Your task to perform on an android device: Open calendar and show me the fourth week of next month Image 0: 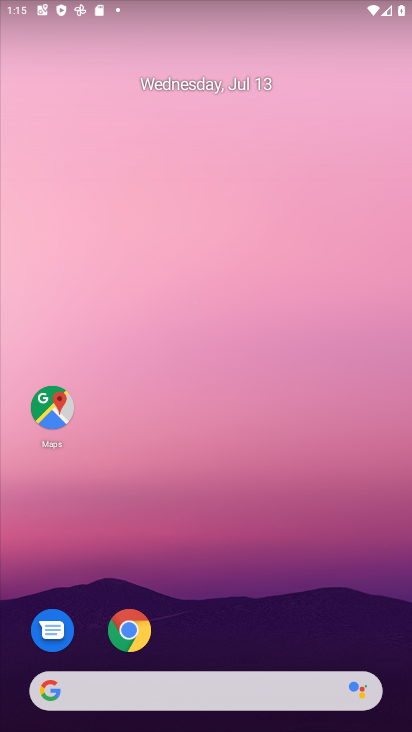
Step 0: drag from (336, 612) to (49, 100)
Your task to perform on an android device: Open calendar and show me the fourth week of next month Image 1: 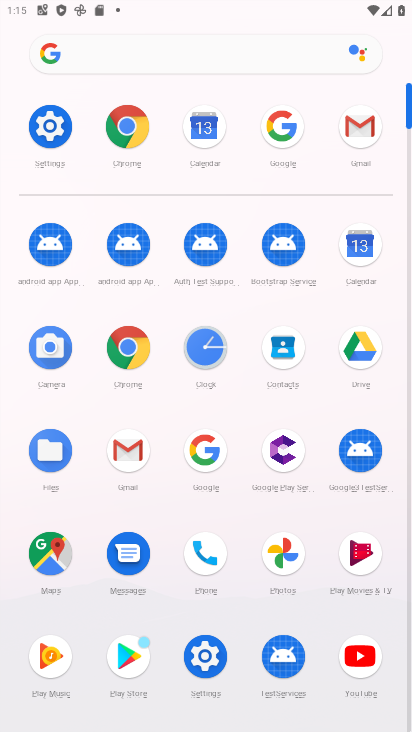
Step 1: click (356, 260)
Your task to perform on an android device: Open calendar and show me the fourth week of next month Image 2: 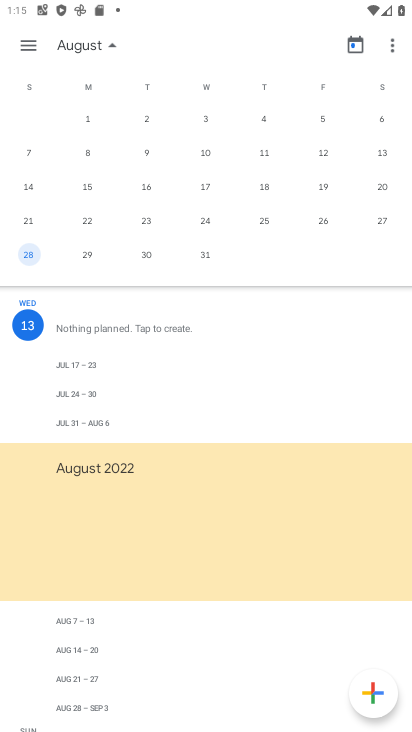
Step 2: click (74, 43)
Your task to perform on an android device: Open calendar and show me the fourth week of next month Image 3: 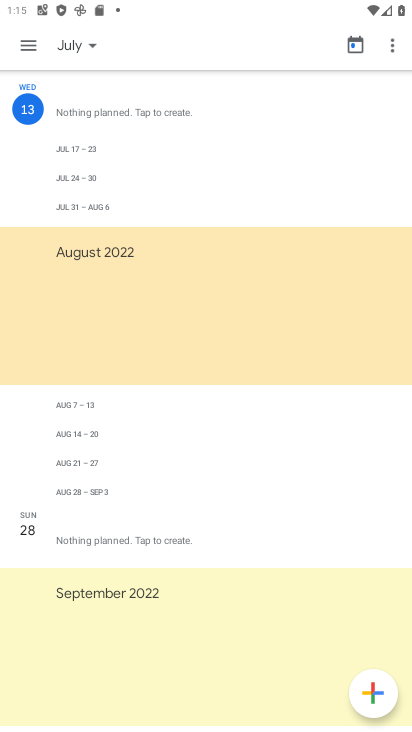
Step 3: click (59, 54)
Your task to perform on an android device: Open calendar and show me the fourth week of next month Image 4: 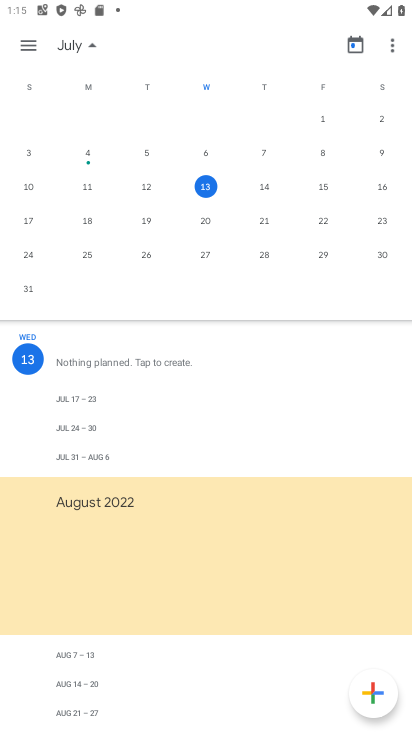
Step 4: drag from (372, 197) to (0, 278)
Your task to perform on an android device: Open calendar and show me the fourth week of next month Image 5: 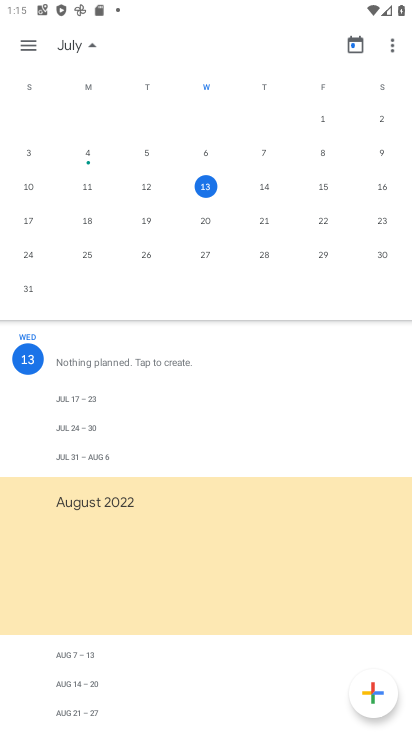
Step 5: drag from (385, 157) to (0, 196)
Your task to perform on an android device: Open calendar and show me the fourth week of next month Image 6: 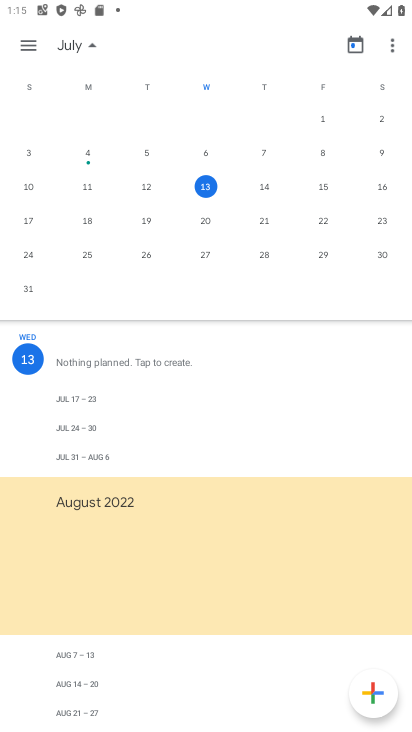
Step 6: drag from (362, 208) to (2, 248)
Your task to perform on an android device: Open calendar and show me the fourth week of next month Image 7: 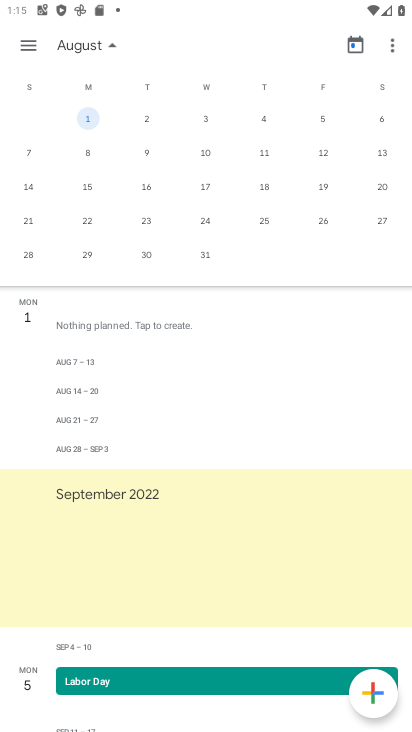
Step 7: click (19, 258)
Your task to perform on an android device: Open calendar and show me the fourth week of next month Image 8: 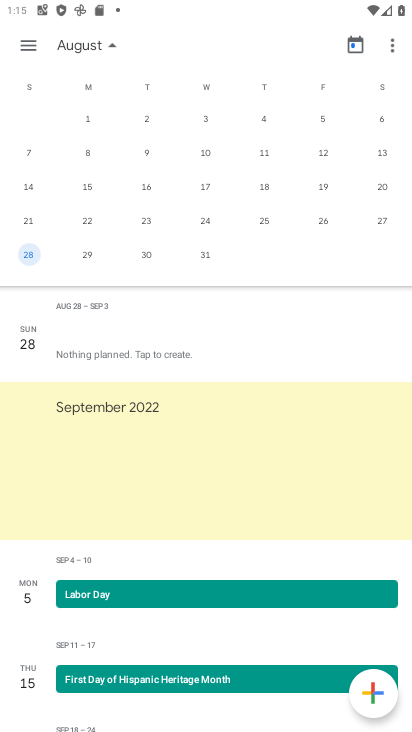
Step 8: task complete